Your task to perform on an android device: Open maps Image 0: 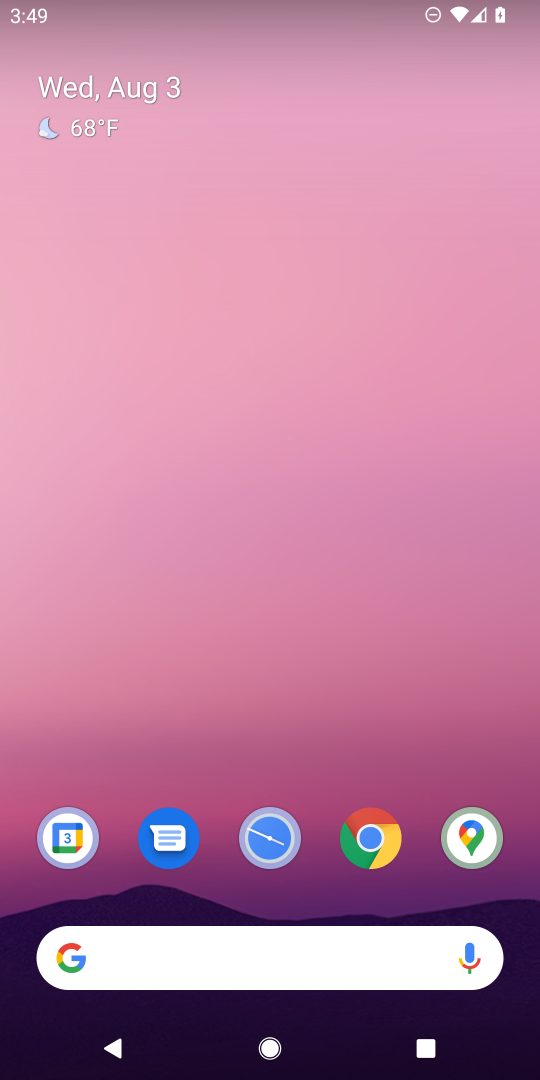
Step 0: click (496, 839)
Your task to perform on an android device: Open maps Image 1: 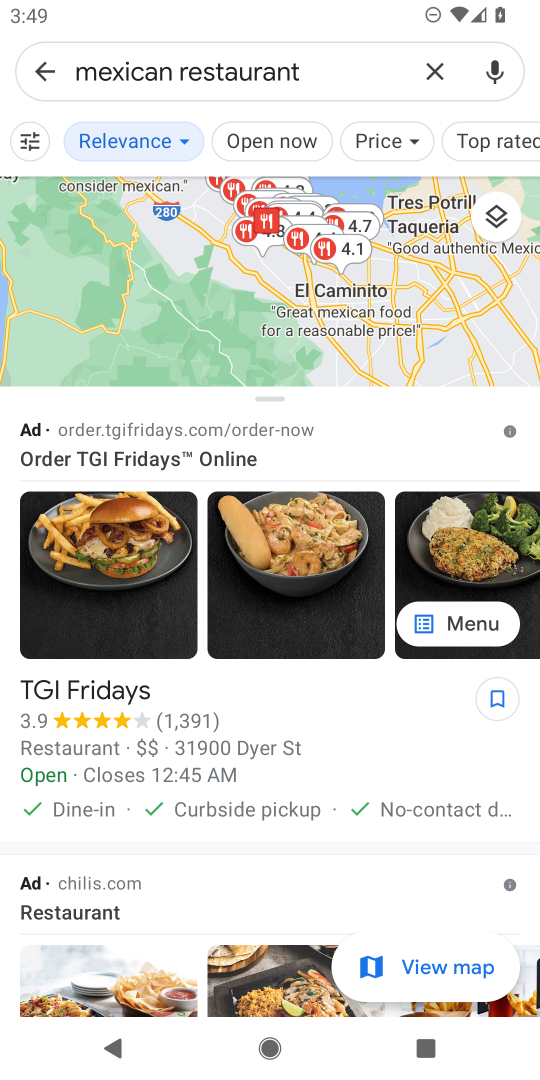
Step 1: task complete